Your task to perform on an android device: find snoozed emails in the gmail app Image 0: 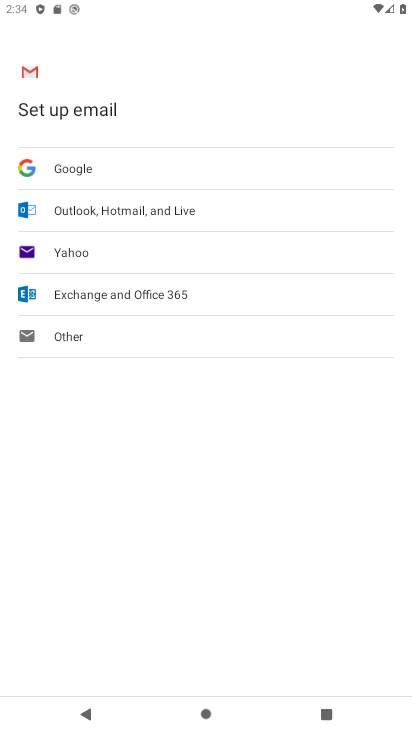
Step 0: press home button
Your task to perform on an android device: find snoozed emails in the gmail app Image 1: 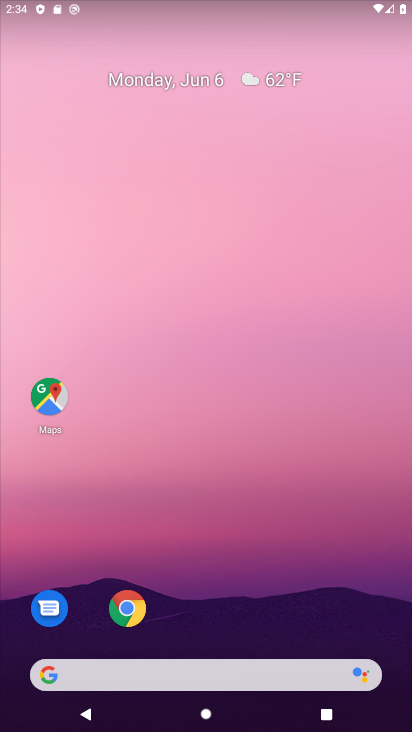
Step 1: drag from (267, 614) to (260, 61)
Your task to perform on an android device: find snoozed emails in the gmail app Image 2: 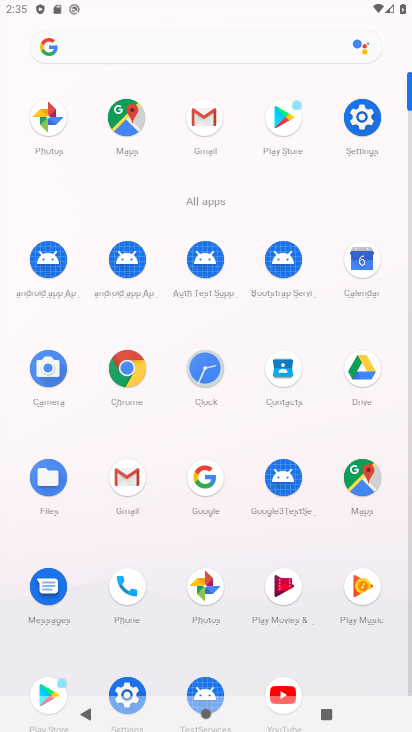
Step 2: click (197, 129)
Your task to perform on an android device: find snoozed emails in the gmail app Image 3: 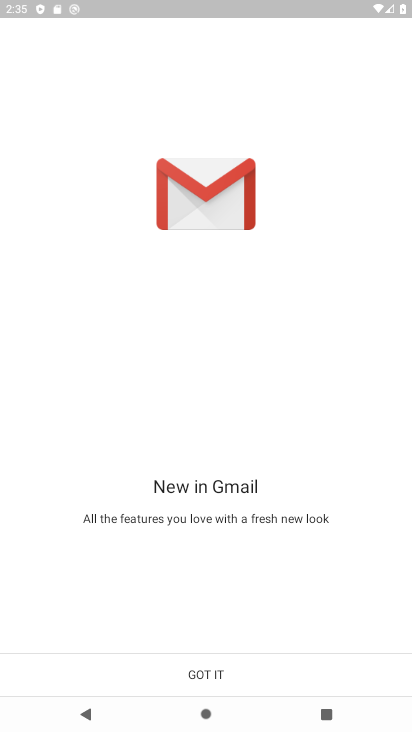
Step 3: click (217, 675)
Your task to perform on an android device: find snoozed emails in the gmail app Image 4: 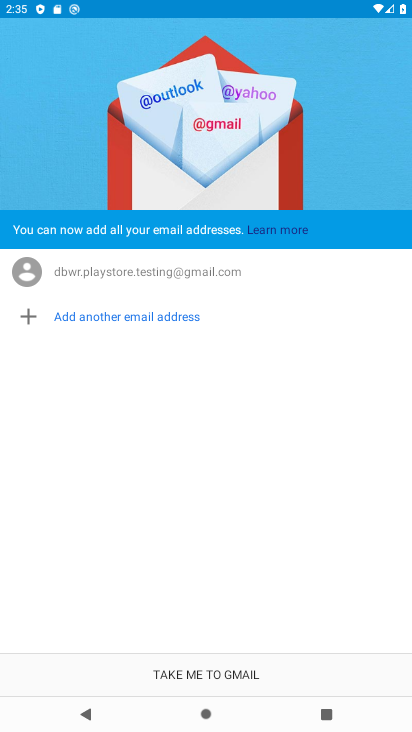
Step 4: click (222, 675)
Your task to perform on an android device: find snoozed emails in the gmail app Image 5: 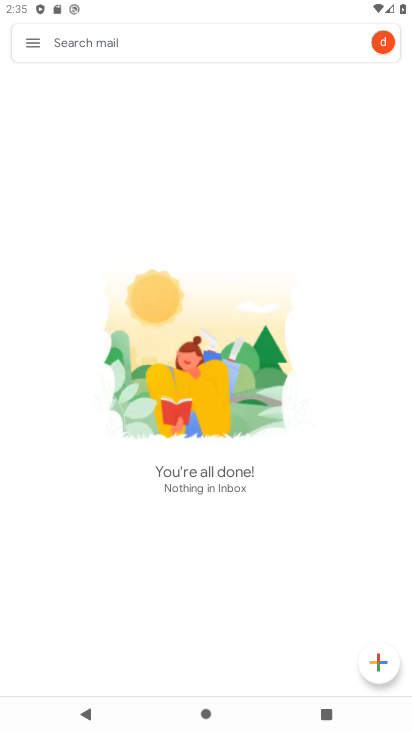
Step 5: click (30, 40)
Your task to perform on an android device: find snoozed emails in the gmail app Image 6: 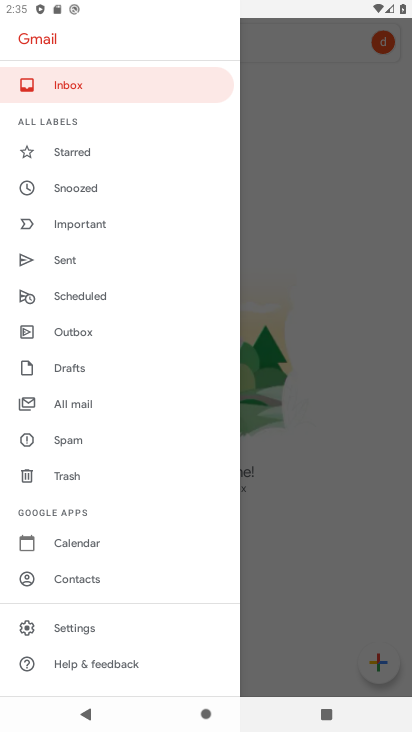
Step 6: click (92, 198)
Your task to perform on an android device: find snoozed emails in the gmail app Image 7: 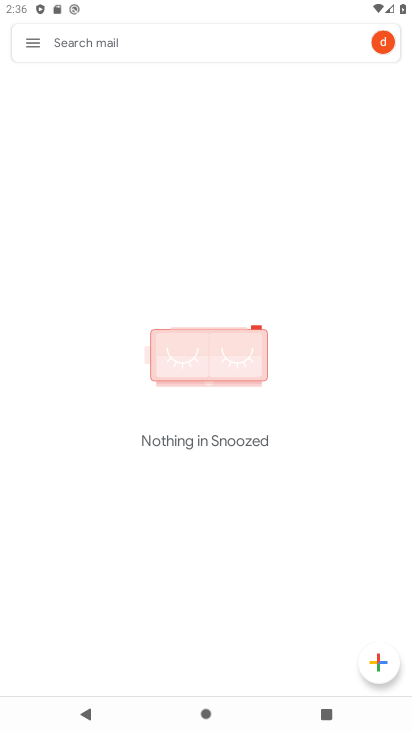
Step 7: task complete